Your task to perform on an android device: Search for Italian restaurants on Maps Image 0: 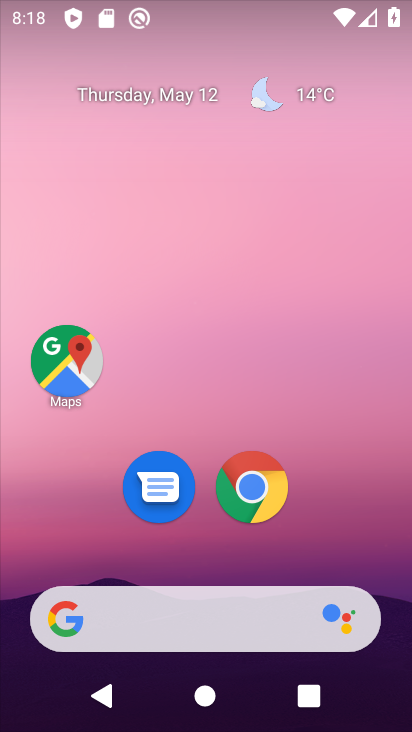
Step 0: drag from (306, 2) to (372, 21)
Your task to perform on an android device: Search for Italian restaurants on Maps Image 1: 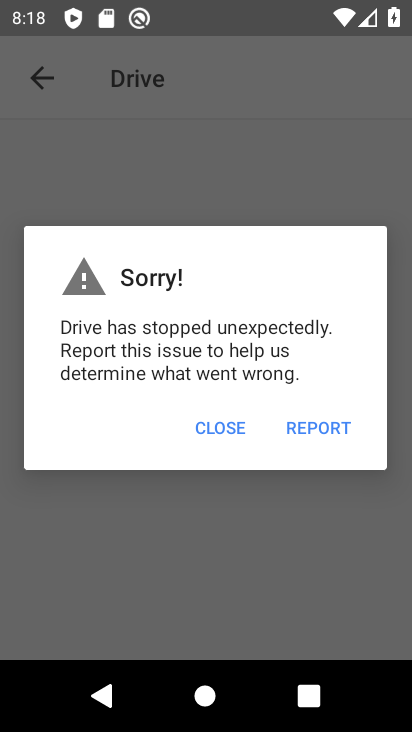
Step 1: press home button
Your task to perform on an android device: Search for Italian restaurants on Maps Image 2: 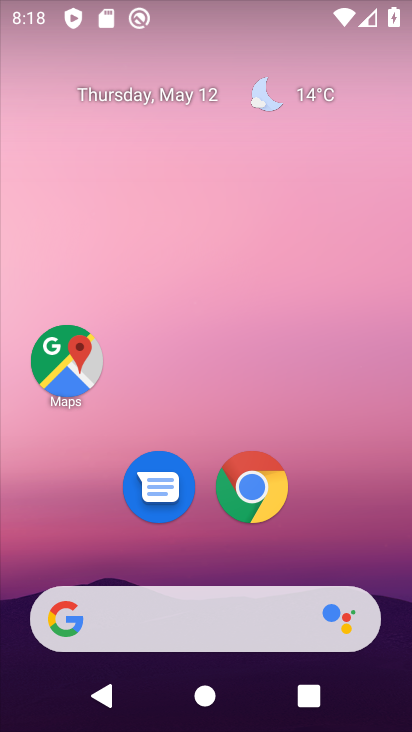
Step 2: click (66, 368)
Your task to perform on an android device: Search for Italian restaurants on Maps Image 3: 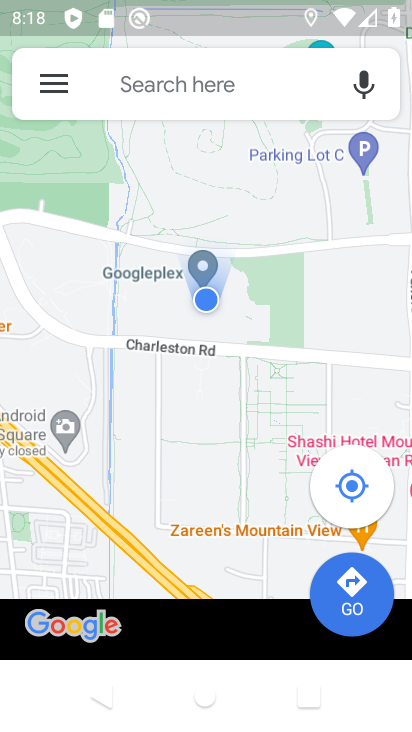
Step 3: click (168, 85)
Your task to perform on an android device: Search for Italian restaurants on Maps Image 4: 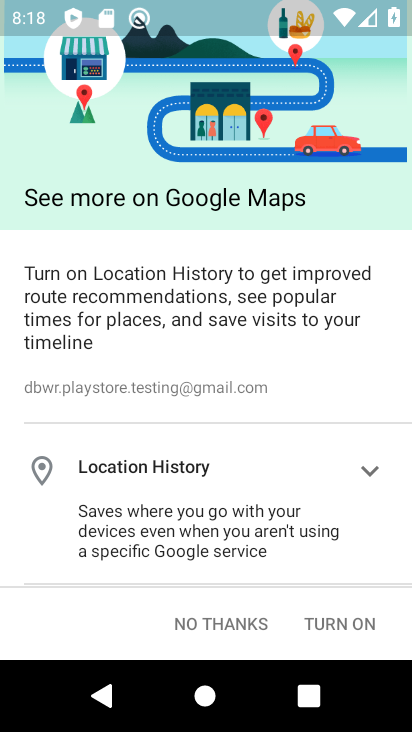
Step 4: click (221, 618)
Your task to perform on an android device: Search for Italian restaurants on Maps Image 5: 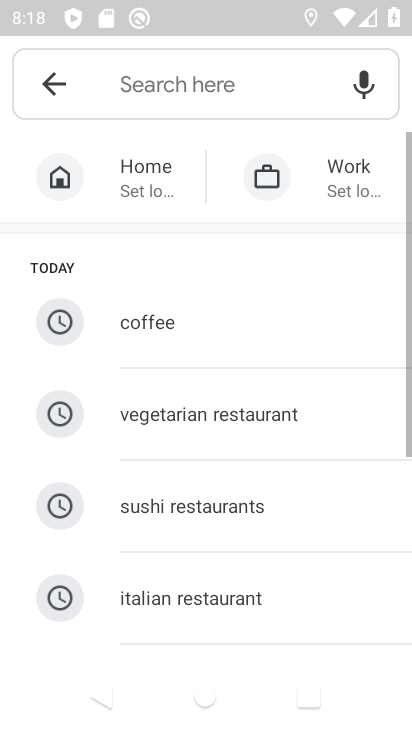
Step 5: click (139, 90)
Your task to perform on an android device: Search for Italian restaurants on Maps Image 6: 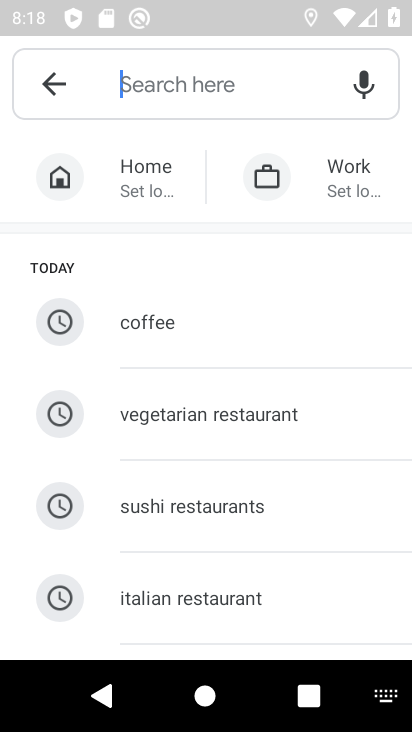
Step 6: type "italian restaurant"
Your task to perform on an android device: Search for Italian restaurants on Maps Image 7: 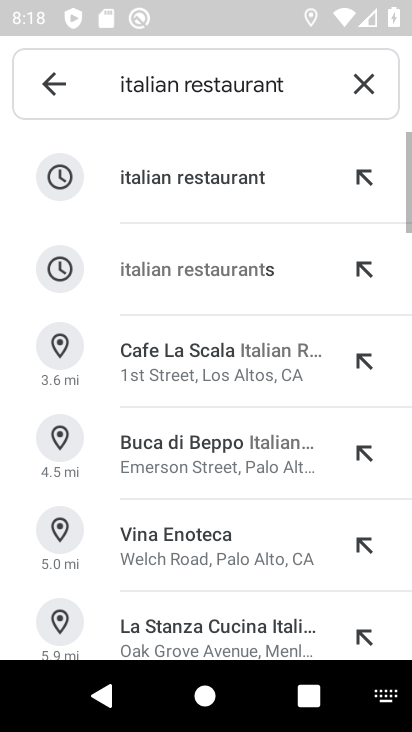
Step 7: click (175, 175)
Your task to perform on an android device: Search for Italian restaurants on Maps Image 8: 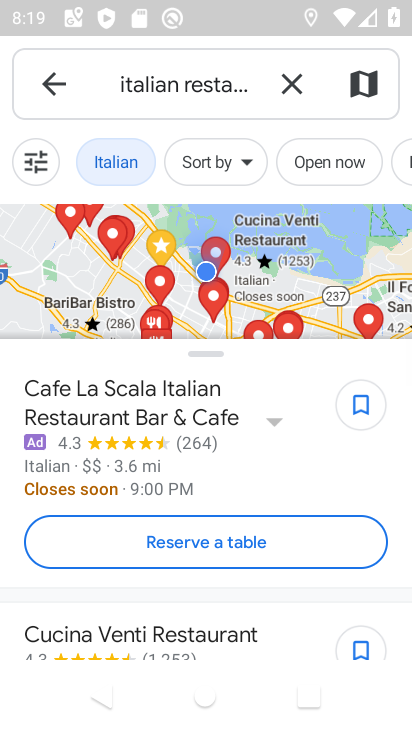
Step 8: task complete